Your task to perform on an android device: toggle show notifications on the lock screen Image 0: 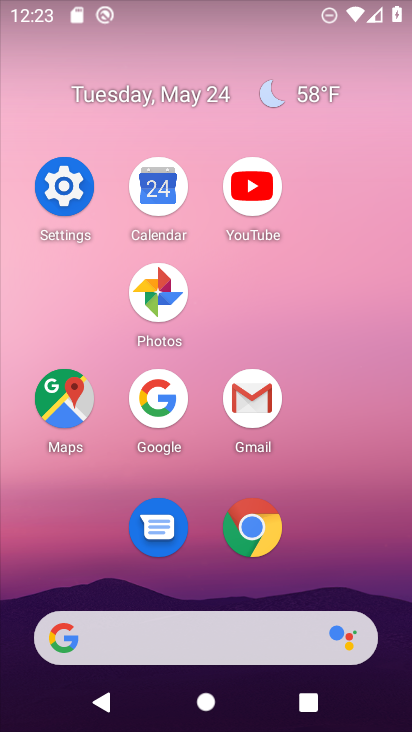
Step 0: click (68, 201)
Your task to perform on an android device: toggle show notifications on the lock screen Image 1: 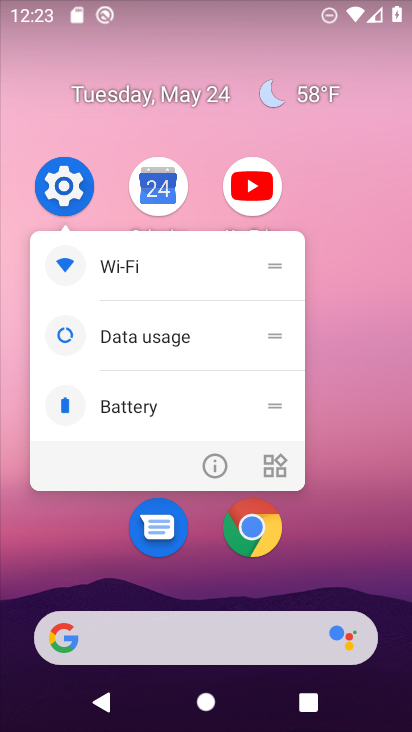
Step 1: click (34, 171)
Your task to perform on an android device: toggle show notifications on the lock screen Image 2: 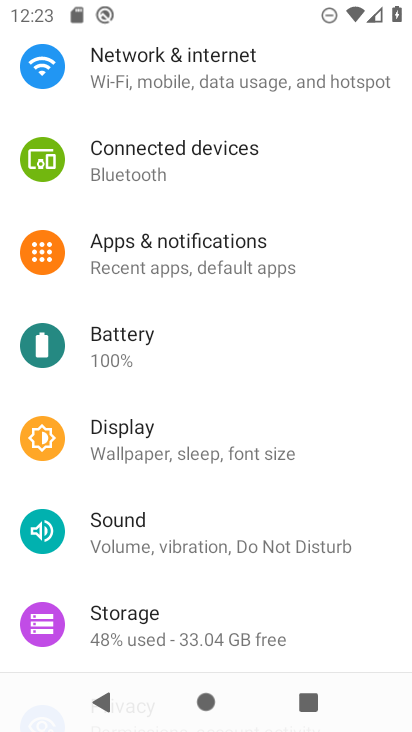
Step 2: click (153, 262)
Your task to perform on an android device: toggle show notifications on the lock screen Image 3: 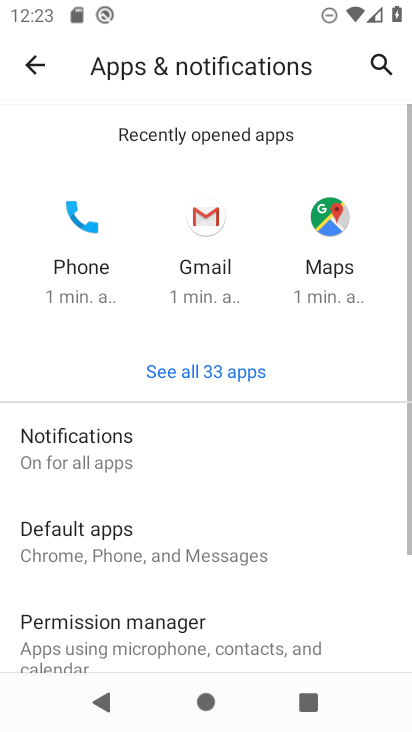
Step 3: click (123, 475)
Your task to perform on an android device: toggle show notifications on the lock screen Image 4: 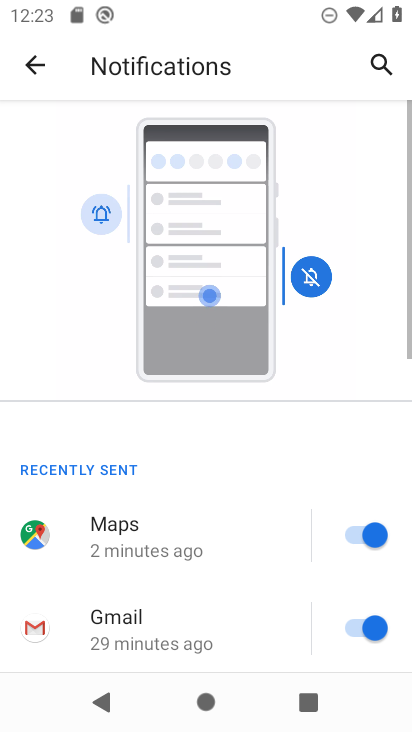
Step 4: drag from (123, 475) to (148, 136)
Your task to perform on an android device: toggle show notifications on the lock screen Image 5: 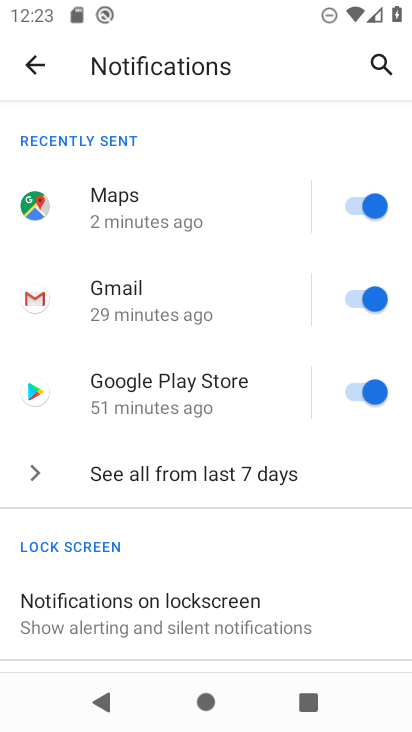
Step 5: drag from (154, 555) to (189, 269)
Your task to perform on an android device: toggle show notifications on the lock screen Image 6: 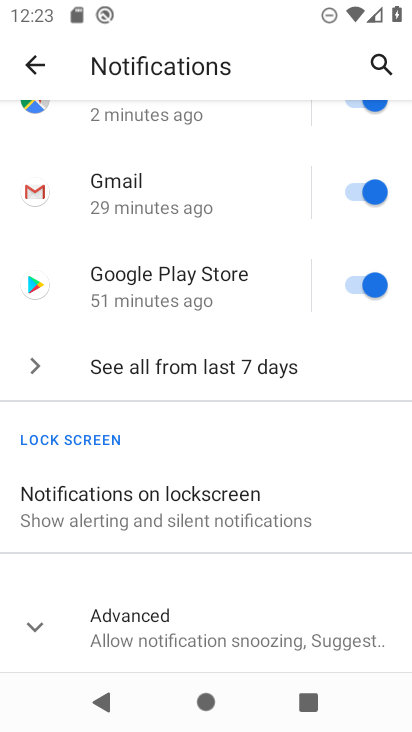
Step 6: click (216, 490)
Your task to perform on an android device: toggle show notifications on the lock screen Image 7: 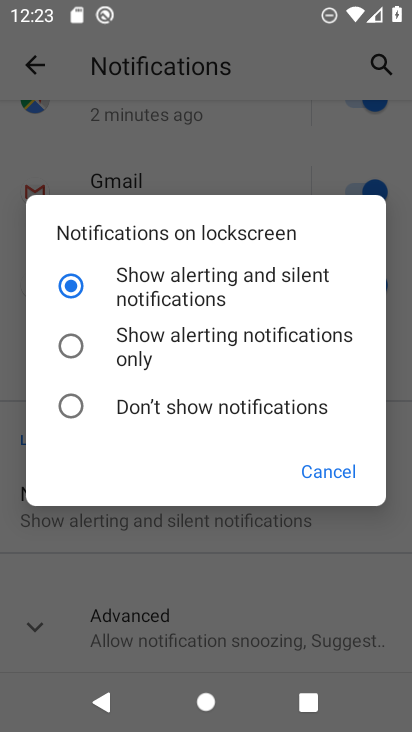
Step 7: click (165, 330)
Your task to perform on an android device: toggle show notifications on the lock screen Image 8: 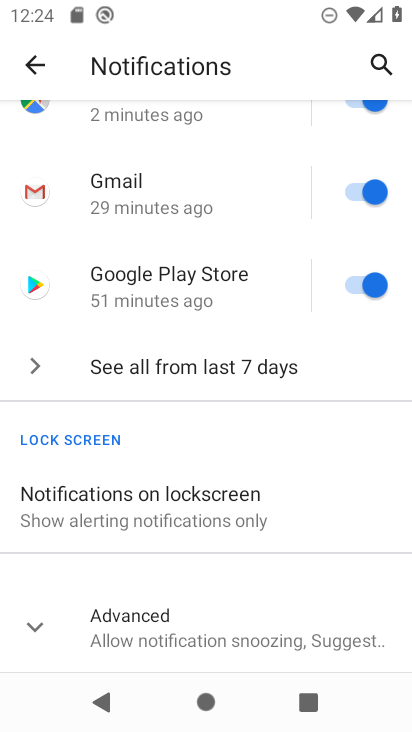
Step 8: task complete